Your task to perform on an android device: Go to Wikipedia Image 0: 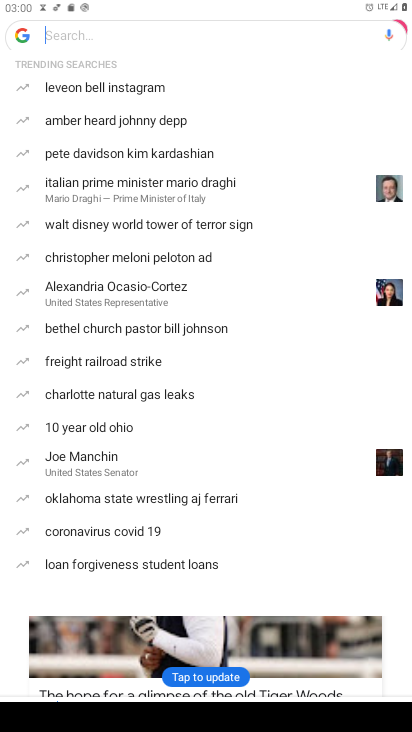
Step 0: press home button
Your task to perform on an android device: Go to Wikipedia Image 1: 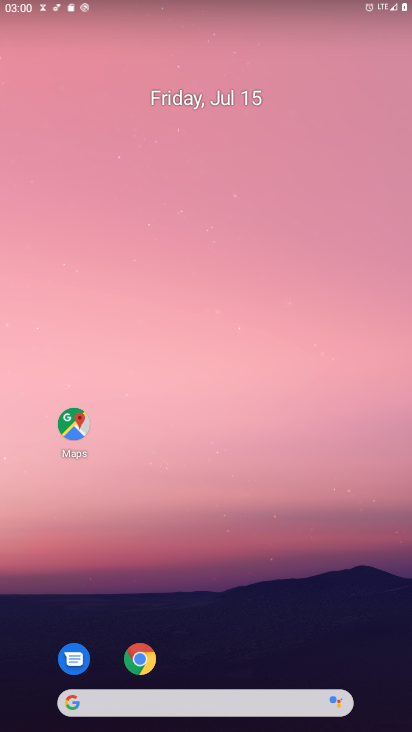
Step 1: drag from (130, 599) to (204, 238)
Your task to perform on an android device: Go to Wikipedia Image 2: 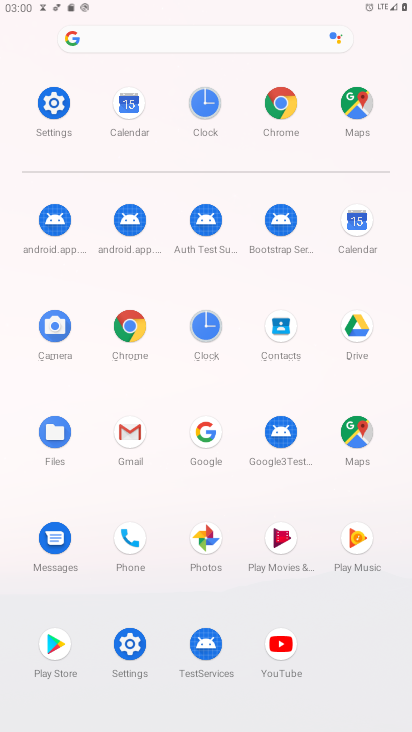
Step 2: click (120, 323)
Your task to perform on an android device: Go to Wikipedia Image 3: 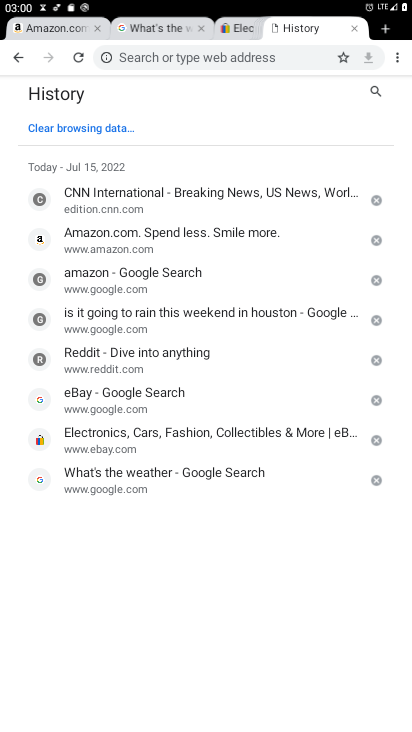
Step 3: click (387, 25)
Your task to perform on an android device: Go to Wikipedia Image 4: 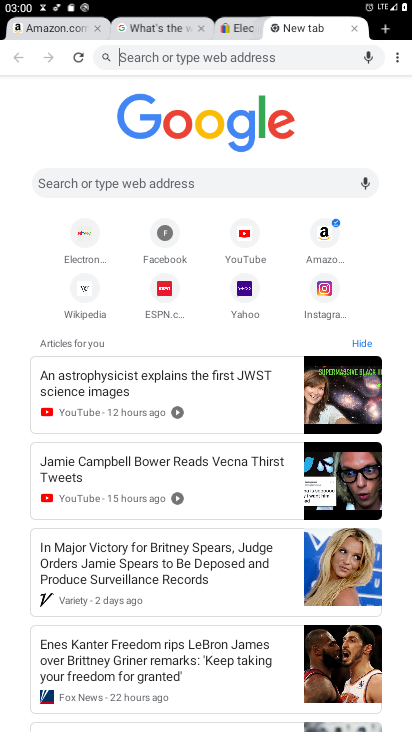
Step 4: click (77, 287)
Your task to perform on an android device: Go to Wikipedia Image 5: 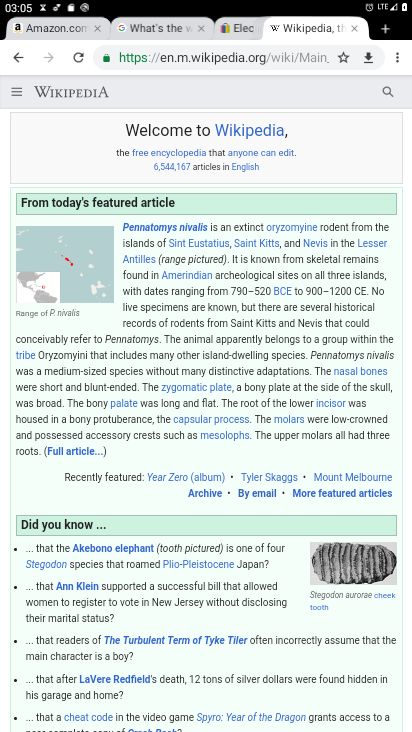
Step 5: task complete